Your task to perform on an android device: Open Google Chrome Image 0: 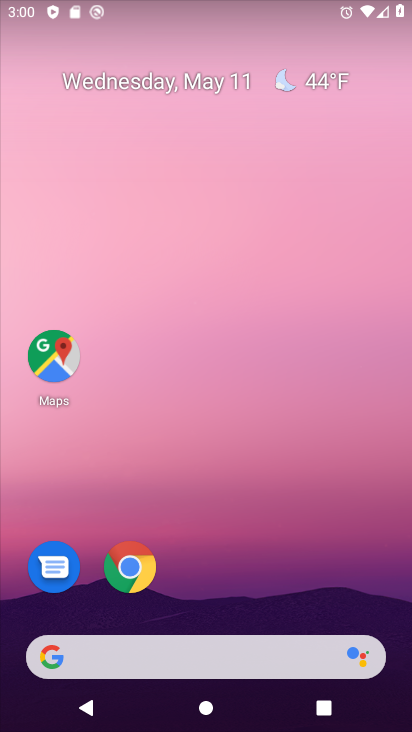
Step 0: drag from (231, 513) to (233, 9)
Your task to perform on an android device: Open Google Chrome Image 1: 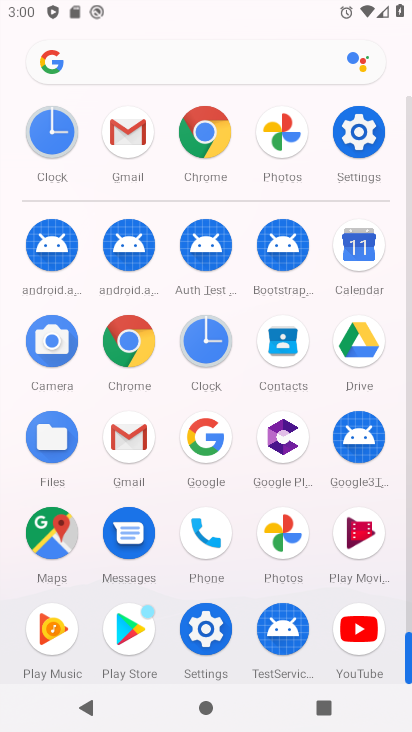
Step 1: click (126, 329)
Your task to perform on an android device: Open Google Chrome Image 2: 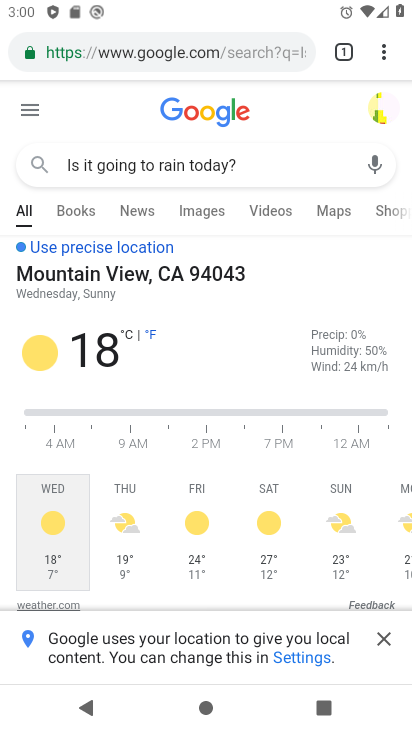
Step 2: task complete